Your task to perform on an android device: toggle translation in the chrome app Image 0: 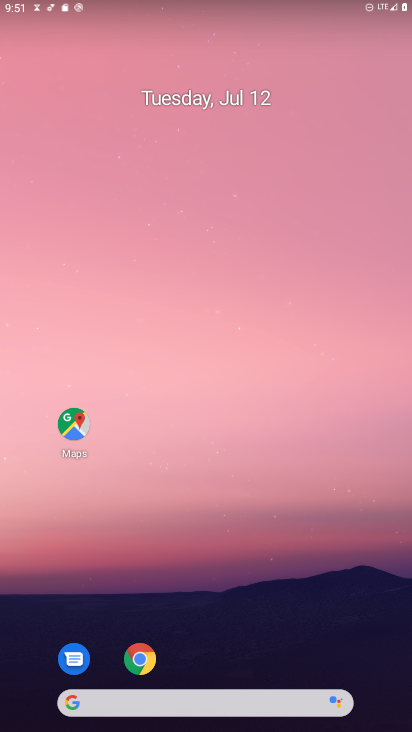
Step 0: click (139, 658)
Your task to perform on an android device: toggle translation in the chrome app Image 1: 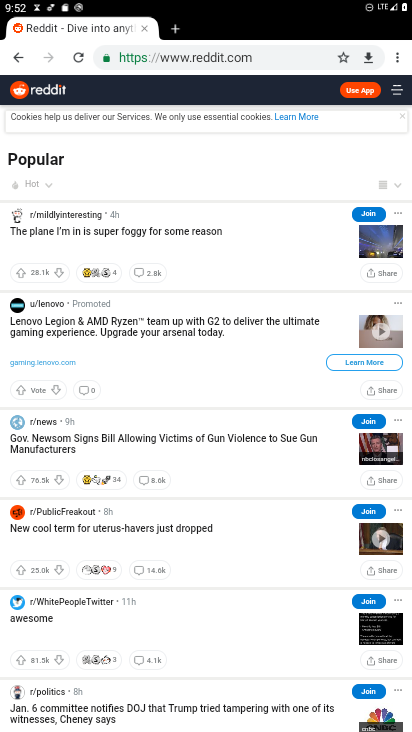
Step 1: click (399, 58)
Your task to perform on an android device: toggle translation in the chrome app Image 2: 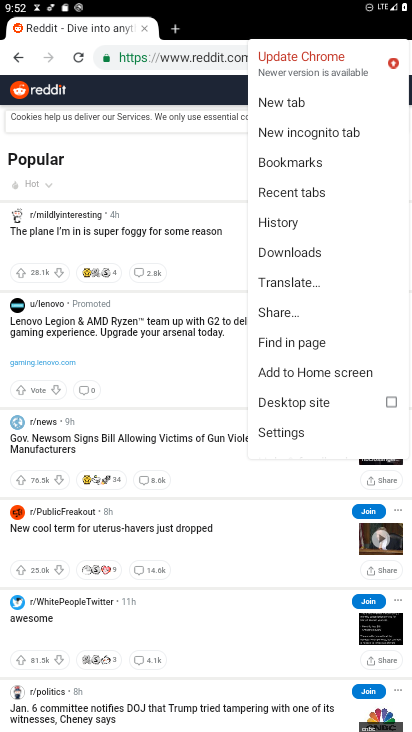
Step 2: click (286, 430)
Your task to perform on an android device: toggle translation in the chrome app Image 3: 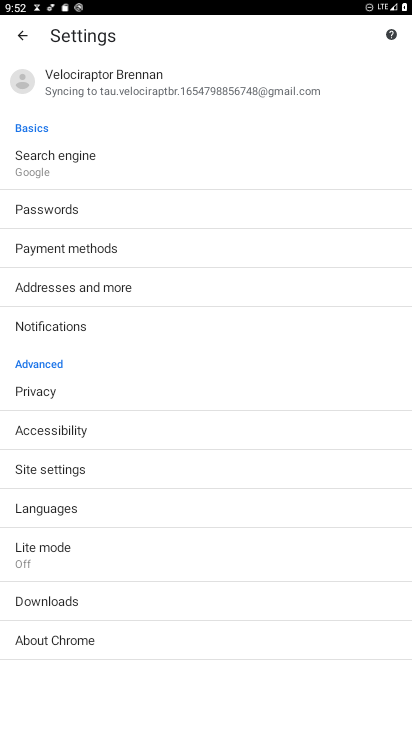
Step 3: click (66, 512)
Your task to perform on an android device: toggle translation in the chrome app Image 4: 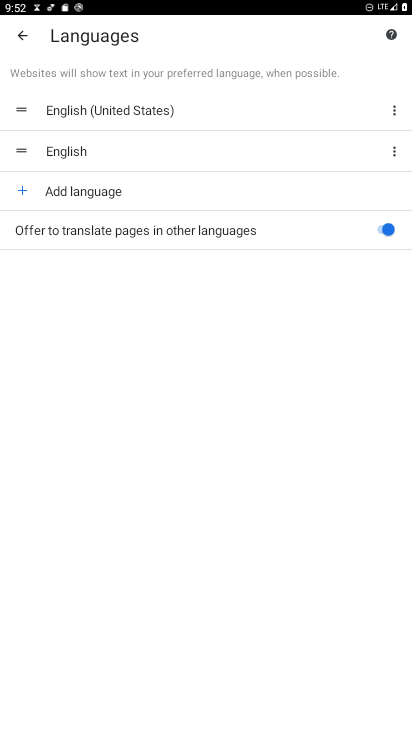
Step 4: click (390, 228)
Your task to perform on an android device: toggle translation in the chrome app Image 5: 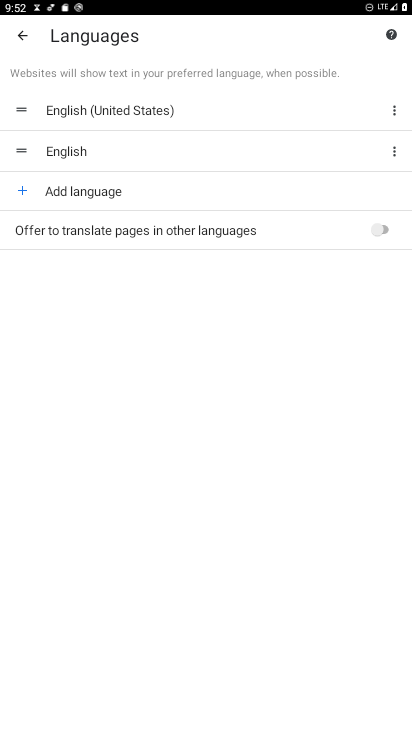
Step 5: task complete